Your task to perform on an android device: set an alarm Image 0: 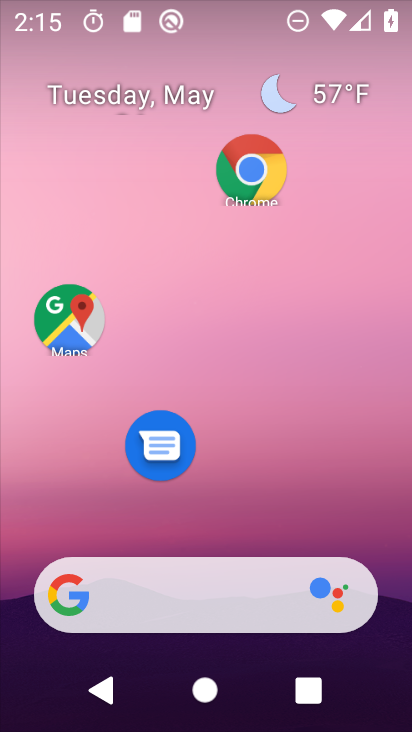
Step 0: drag from (236, 725) to (199, 81)
Your task to perform on an android device: set an alarm Image 1: 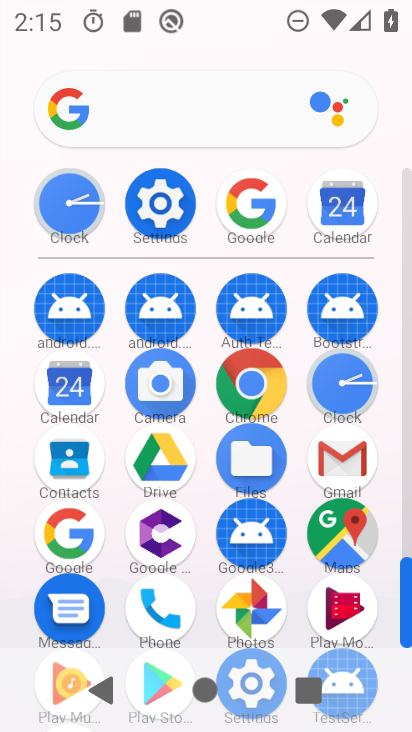
Step 1: click (343, 386)
Your task to perform on an android device: set an alarm Image 2: 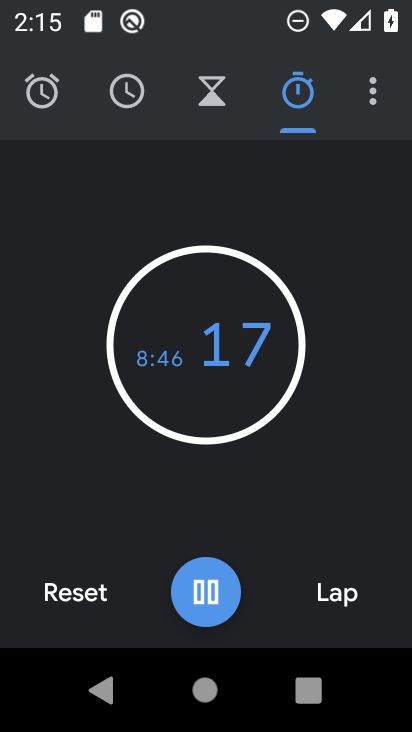
Step 2: click (48, 101)
Your task to perform on an android device: set an alarm Image 3: 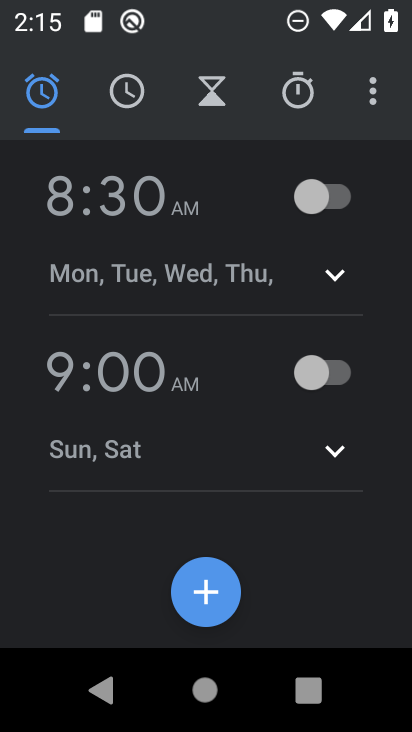
Step 3: click (210, 593)
Your task to perform on an android device: set an alarm Image 4: 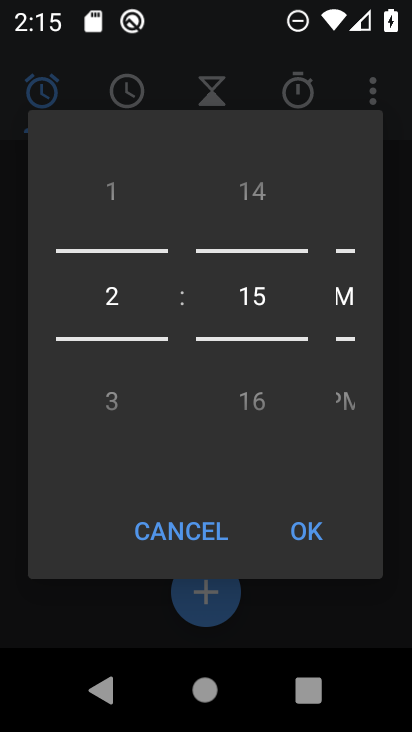
Step 4: drag from (119, 413) to (97, 132)
Your task to perform on an android device: set an alarm Image 5: 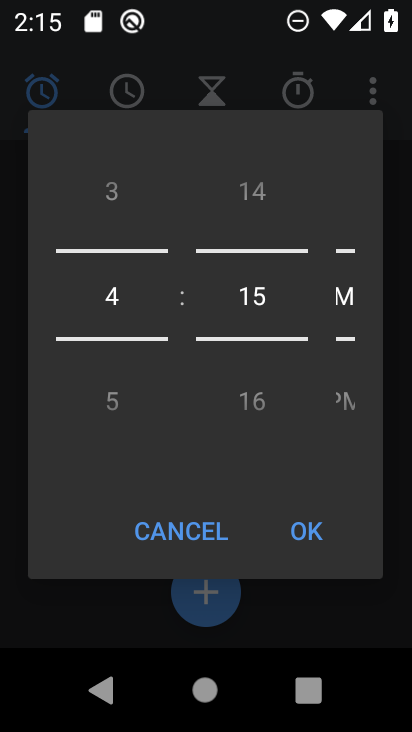
Step 5: drag from (236, 192) to (267, 422)
Your task to perform on an android device: set an alarm Image 6: 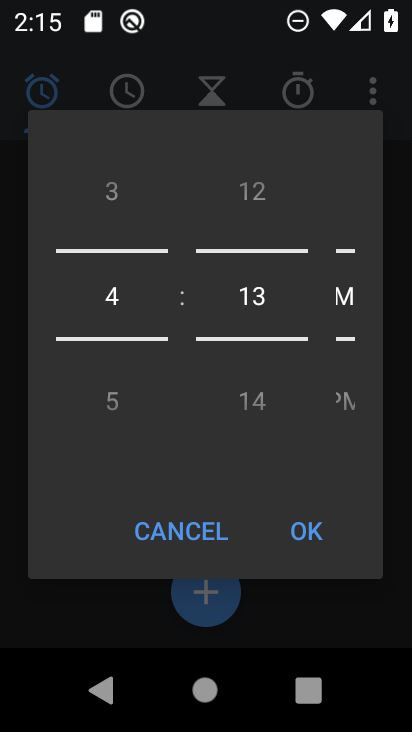
Step 6: click (310, 535)
Your task to perform on an android device: set an alarm Image 7: 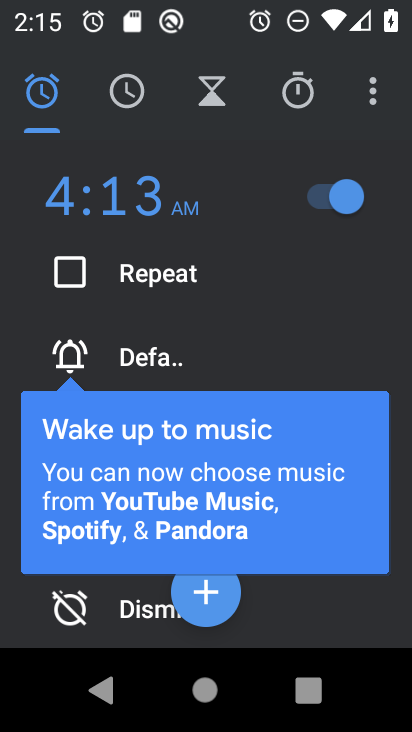
Step 7: task complete